Your task to perform on an android device: turn notification dots off Image 0: 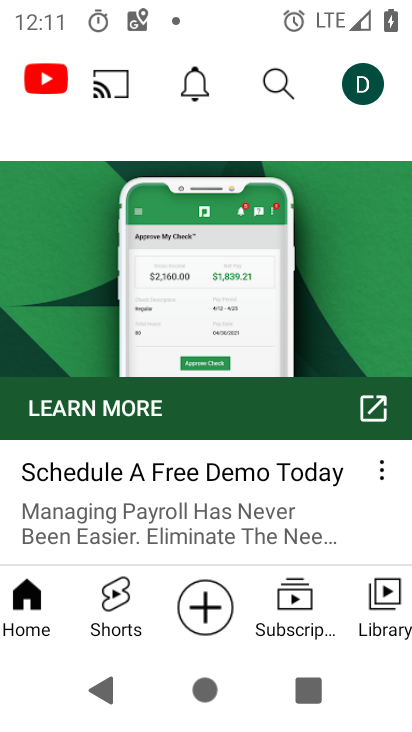
Step 0: press home button
Your task to perform on an android device: turn notification dots off Image 1: 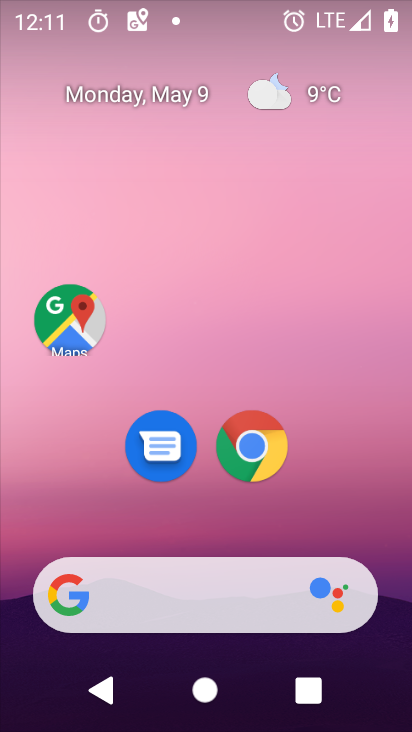
Step 1: drag from (351, 538) to (374, 570)
Your task to perform on an android device: turn notification dots off Image 2: 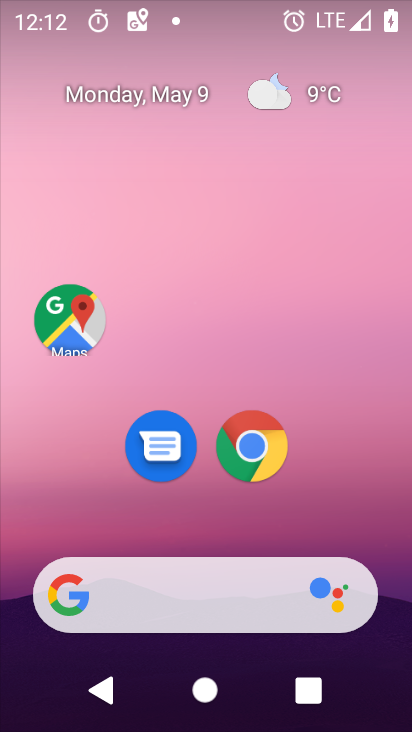
Step 2: drag from (363, 527) to (330, 0)
Your task to perform on an android device: turn notification dots off Image 3: 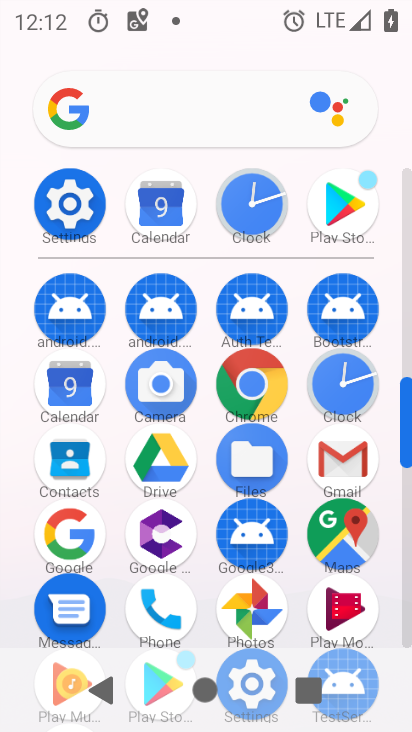
Step 3: click (74, 208)
Your task to perform on an android device: turn notification dots off Image 4: 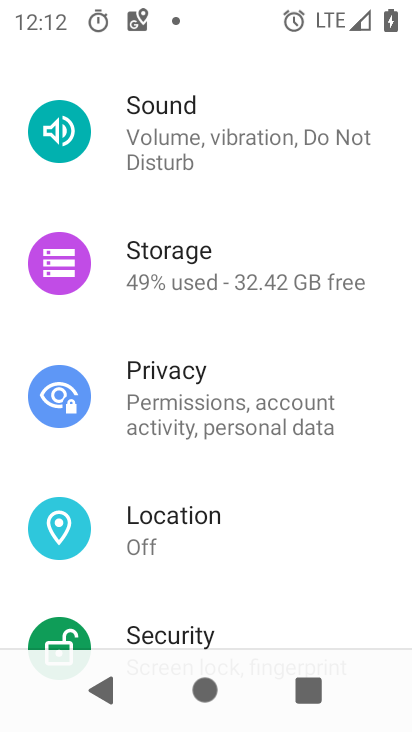
Step 4: drag from (280, 226) to (288, 567)
Your task to perform on an android device: turn notification dots off Image 5: 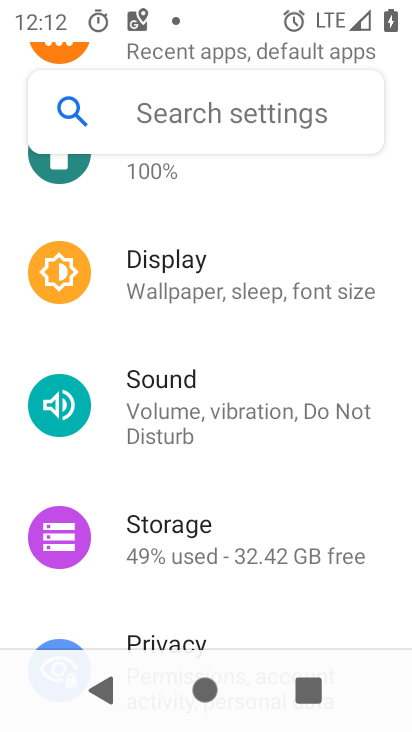
Step 5: drag from (227, 262) to (243, 552)
Your task to perform on an android device: turn notification dots off Image 6: 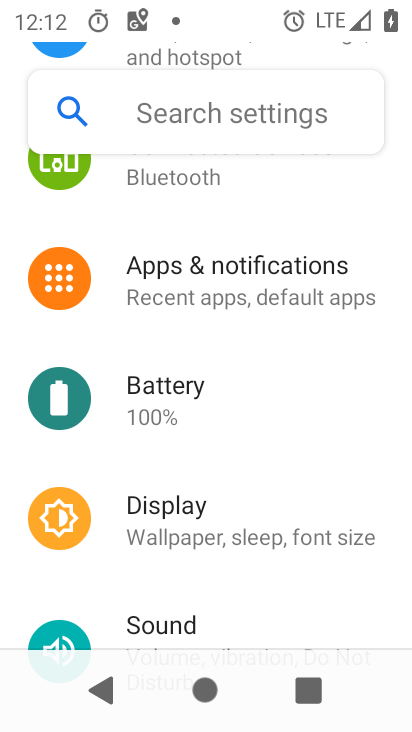
Step 6: click (217, 306)
Your task to perform on an android device: turn notification dots off Image 7: 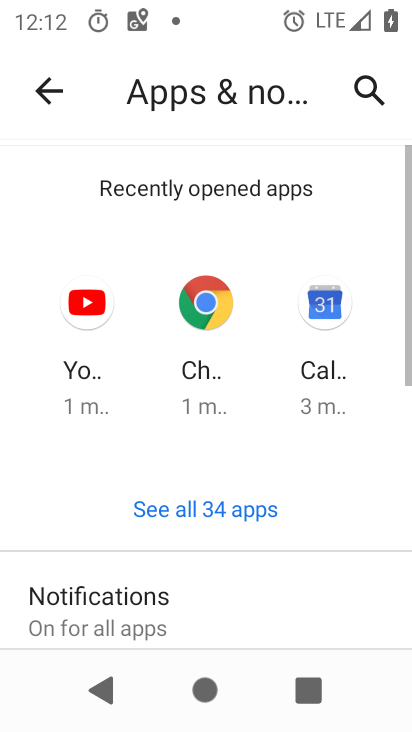
Step 7: drag from (264, 591) to (248, 163)
Your task to perform on an android device: turn notification dots off Image 8: 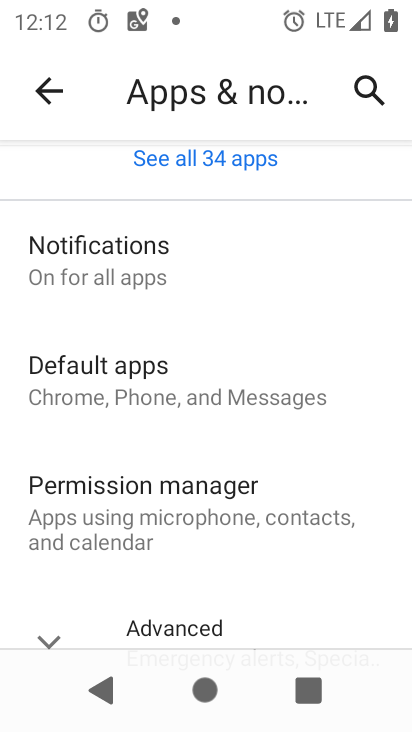
Step 8: click (92, 276)
Your task to perform on an android device: turn notification dots off Image 9: 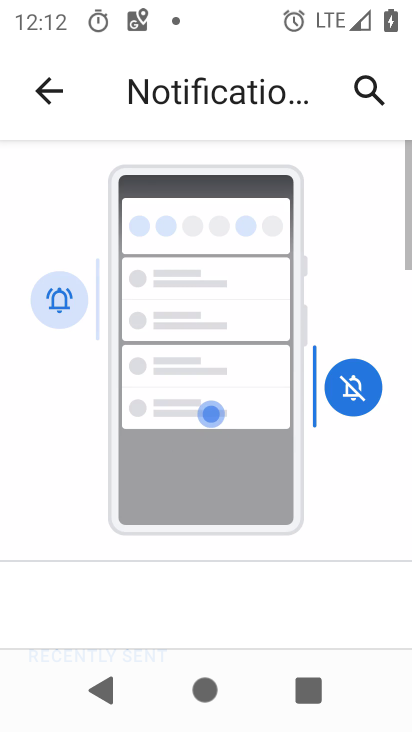
Step 9: drag from (283, 545) to (258, 87)
Your task to perform on an android device: turn notification dots off Image 10: 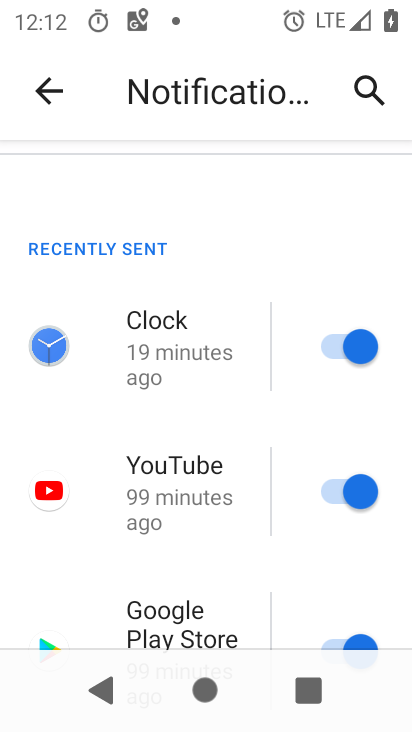
Step 10: drag from (222, 562) to (222, 109)
Your task to perform on an android device: turn notification dots off Image 11: 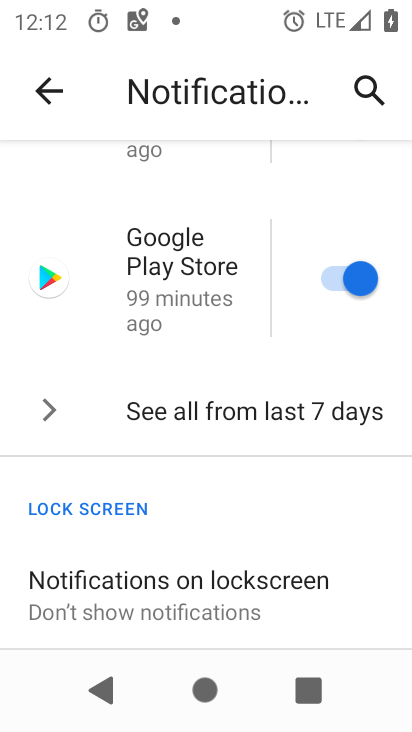
Step 11: drag from (198, 516) to (217, 129)
Your task to perform on an android device: turn notification dots off Image 12: 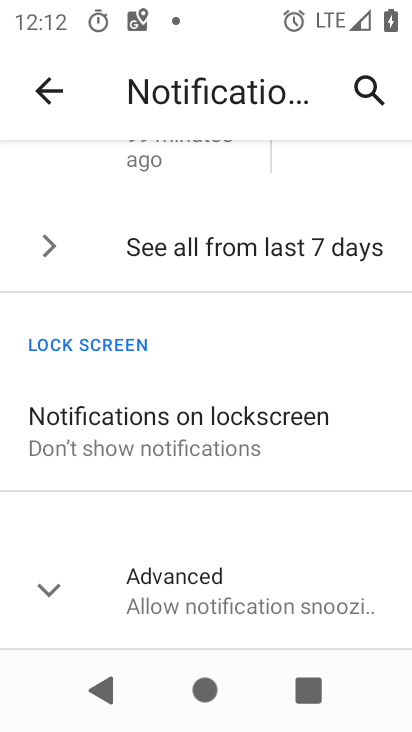
Step 12: click (47, 599)
Your task to perform on an android device: turn notification dots off Image 13: 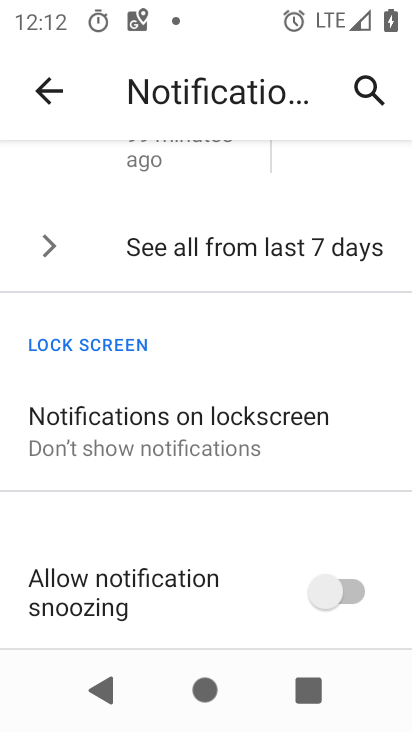
Step 13: drag from (200, 579) to (227, 163)
Your task to perform on an android device: turn notification dots off Image 14: 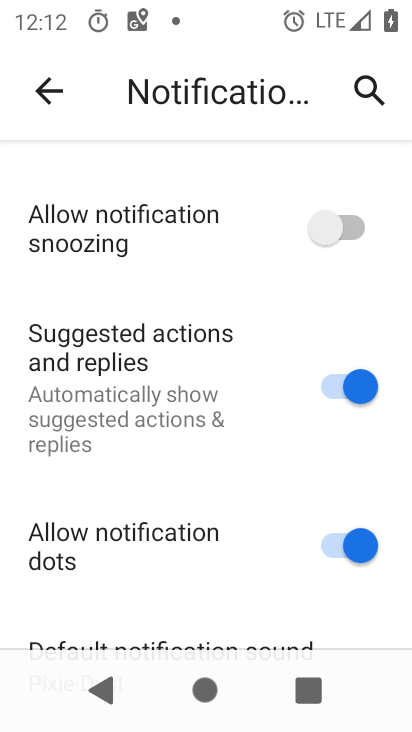
Step 14: click (356, 546)
Your task to perform on an android device: turn notification dots off Image 15: 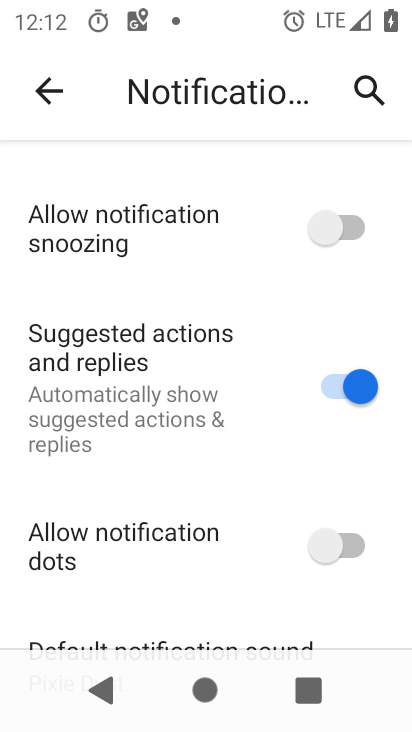
Step 15: task complete